Your task to perform on an android device: Go to Amazon Image 0: 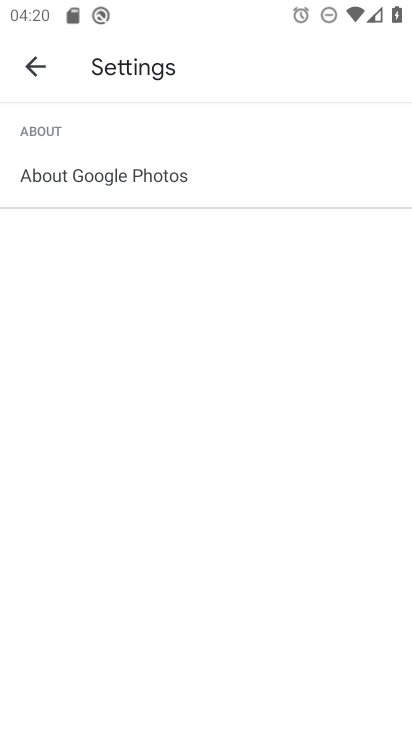
Step 0: press home button
Your task to perform on an android device: Go to Amazon Image 1: 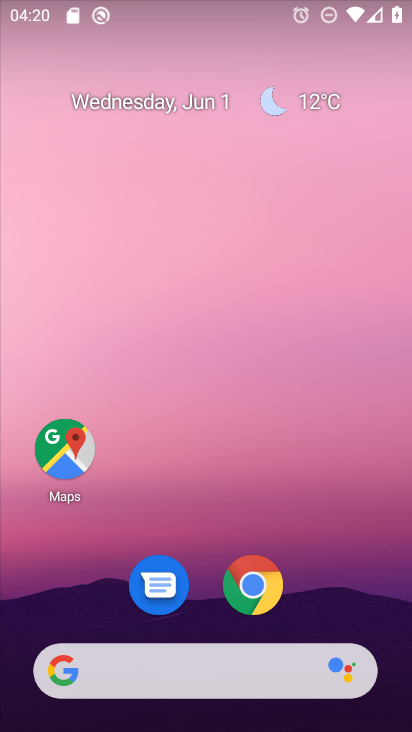
Step 1: click (248, 590)
Your task to perform on an android device: Go to Amazon Image 2: 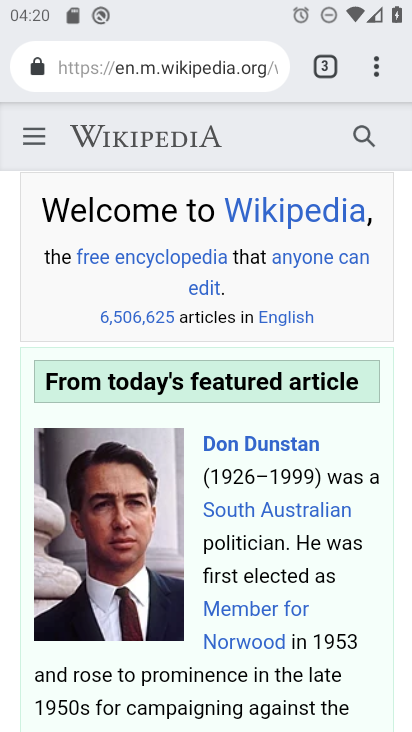
Step 2: click (371, 66)
Your task to perform on an android device: Go to Amazon Image 3: 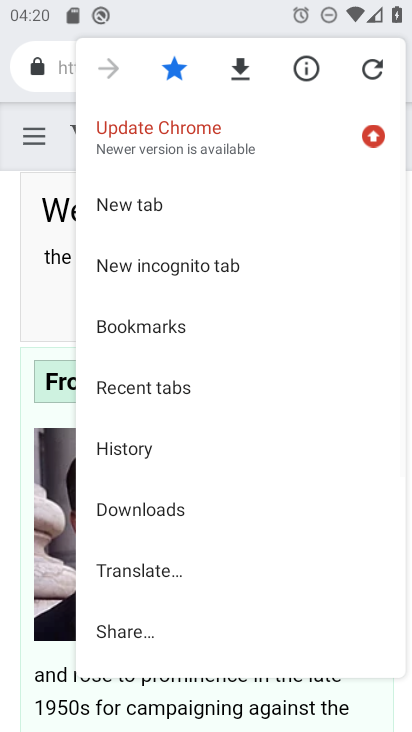
Step 3: click (226, 203)
Your task to perform on an android device: Go to Amazon Image 4: 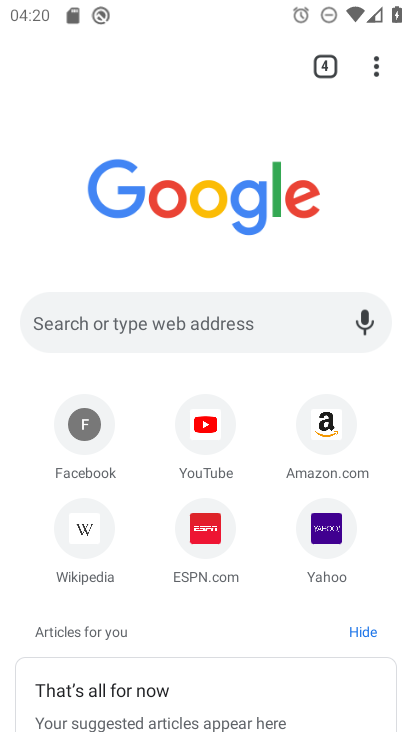
Step 4: click (324, 412)
Your task to perform on an android device: Go to Amazon Image 5: 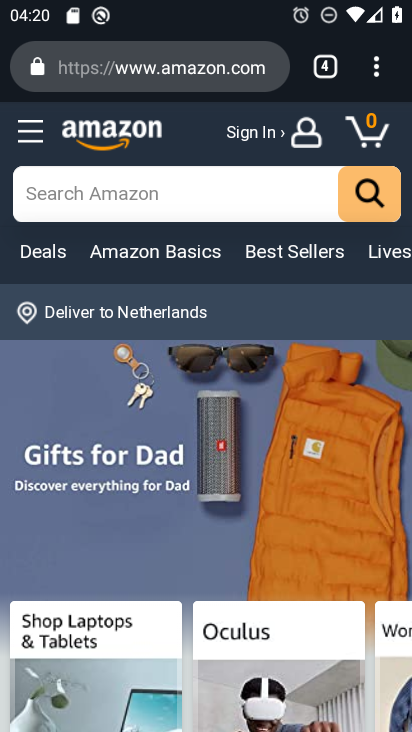
Step 5: task complete